Your task to perform on an android device: When is my next meeting? Image 0: 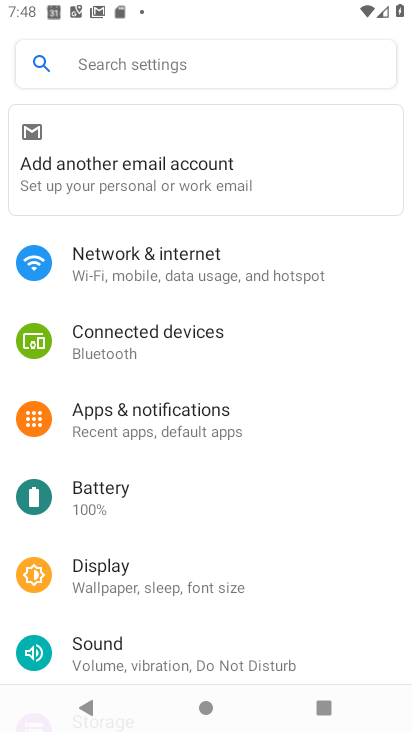
Step 0: drag from (201, 602) to (304, 143)
Your task to perform on an android device: When is my next meeting? Image 1: 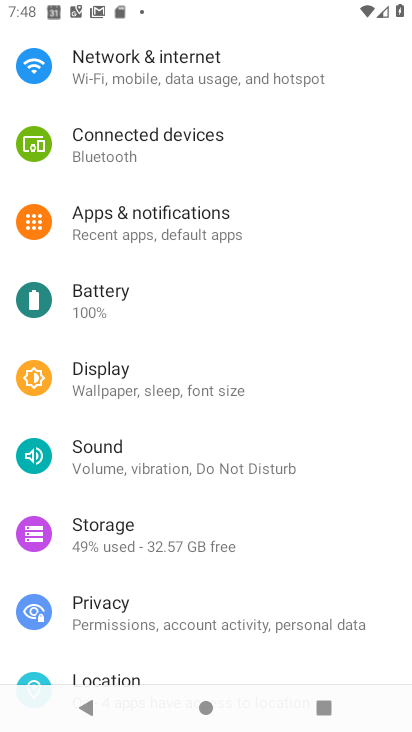
Step 1: press home button
Your task to perform on an android device: When is my next meeting? Image 2: 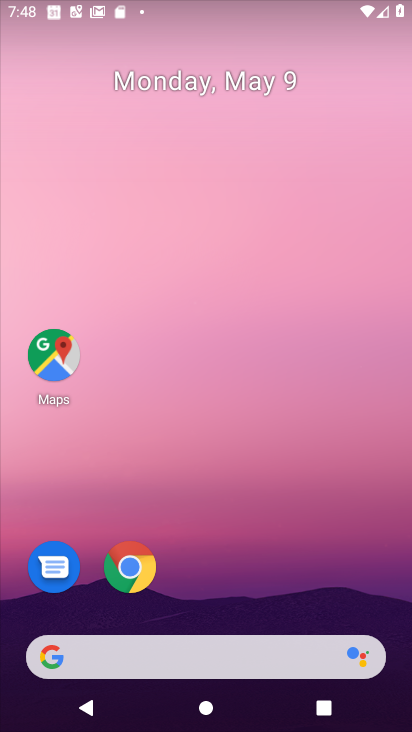
Step 2: drag from (227, 466) to (344, 95)
Your task to perform on an android device: When is my next meeting? Image 3: 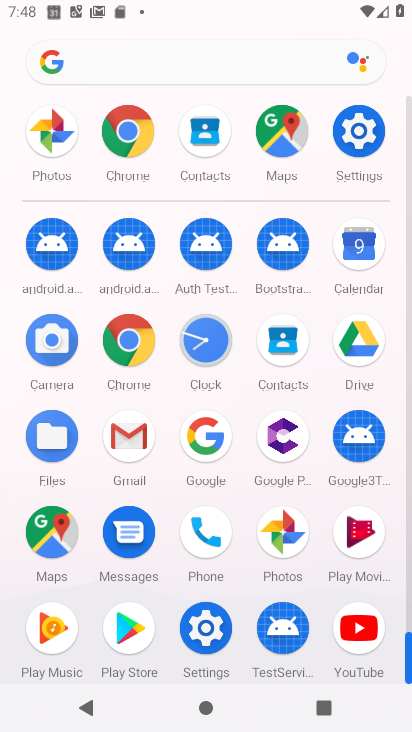
Step 3: click (360, 240)
Your task to perform on an android device: When is my next meeting? Image 4: 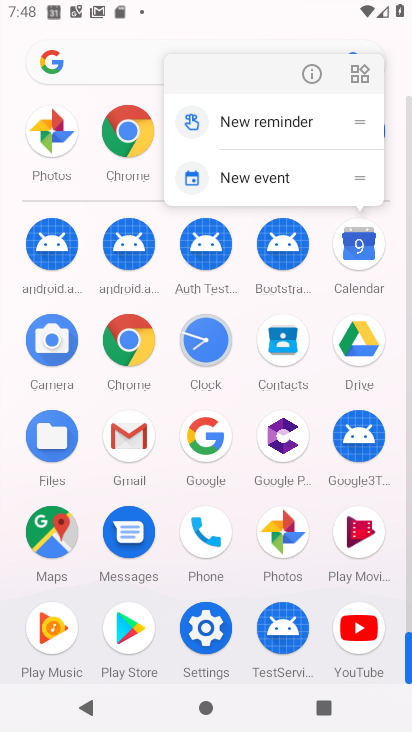
Step 4: click (313, 63)
Your task to perform on an android device: When is my next meeting? Image 5: 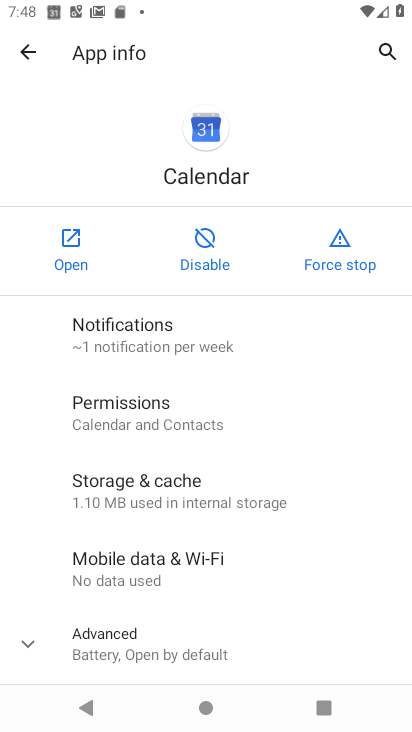
Step 5: click (74, 248)
Your task to perform on an android device: When is my next meeting? Image 6: 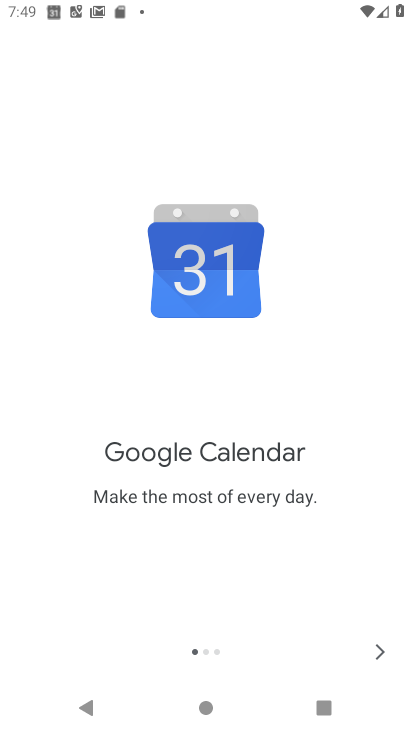
Step 6: click (383, 643)
Your task to perform on an android device: When is my next meeting? Image 7: 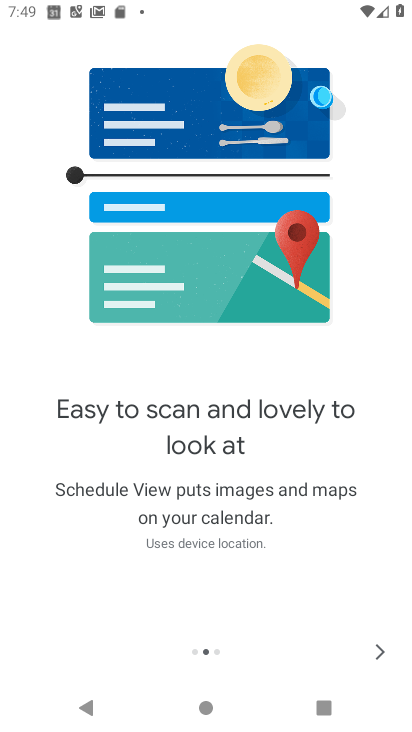
Step 7: click (376, 644)
Your task to perform on an android device: When is my next meeting? Image 8: 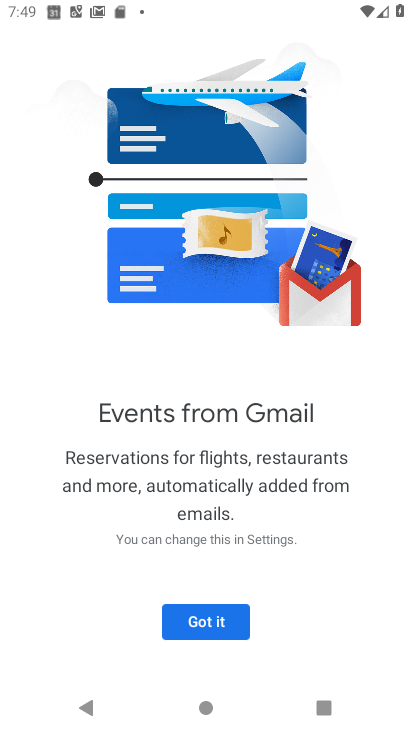
Step 8: click (376, 644)
Your task to perform on an android device: When is my next meeting? Image 9: 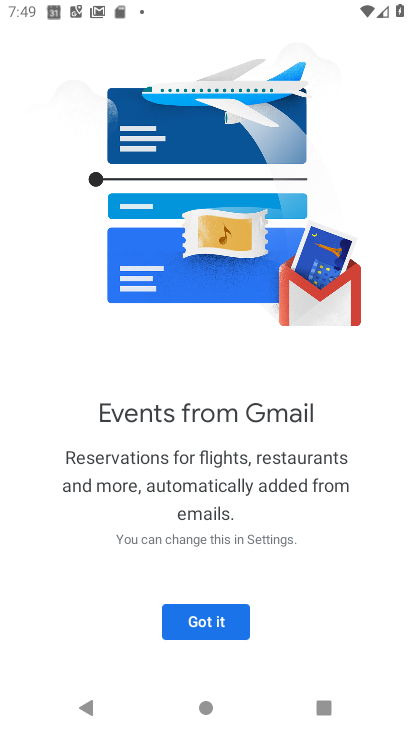
Step 9: click (247, 625)
Your task to perform on an android device: When is my next meeting? Image 10: 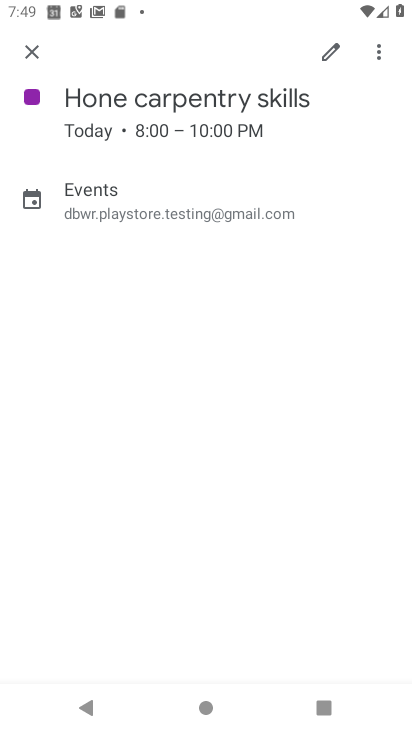
Step 10: click (28, 56)
Your task to perform on an android device: When is my next meeting? Image 11: 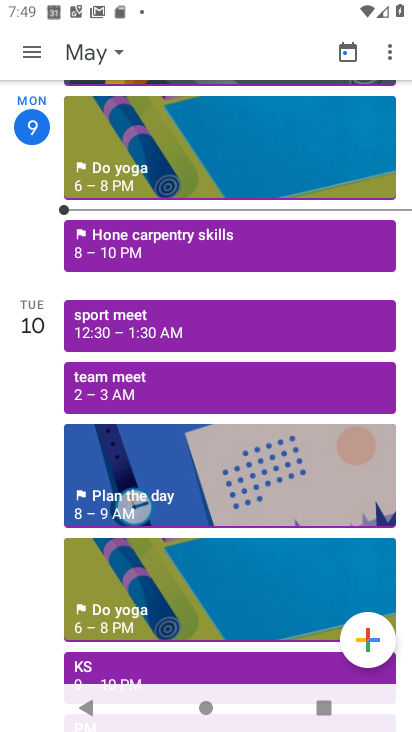
Step 11: task complete